Your task to perform on an android device: change the upload size in google photos Image 0: 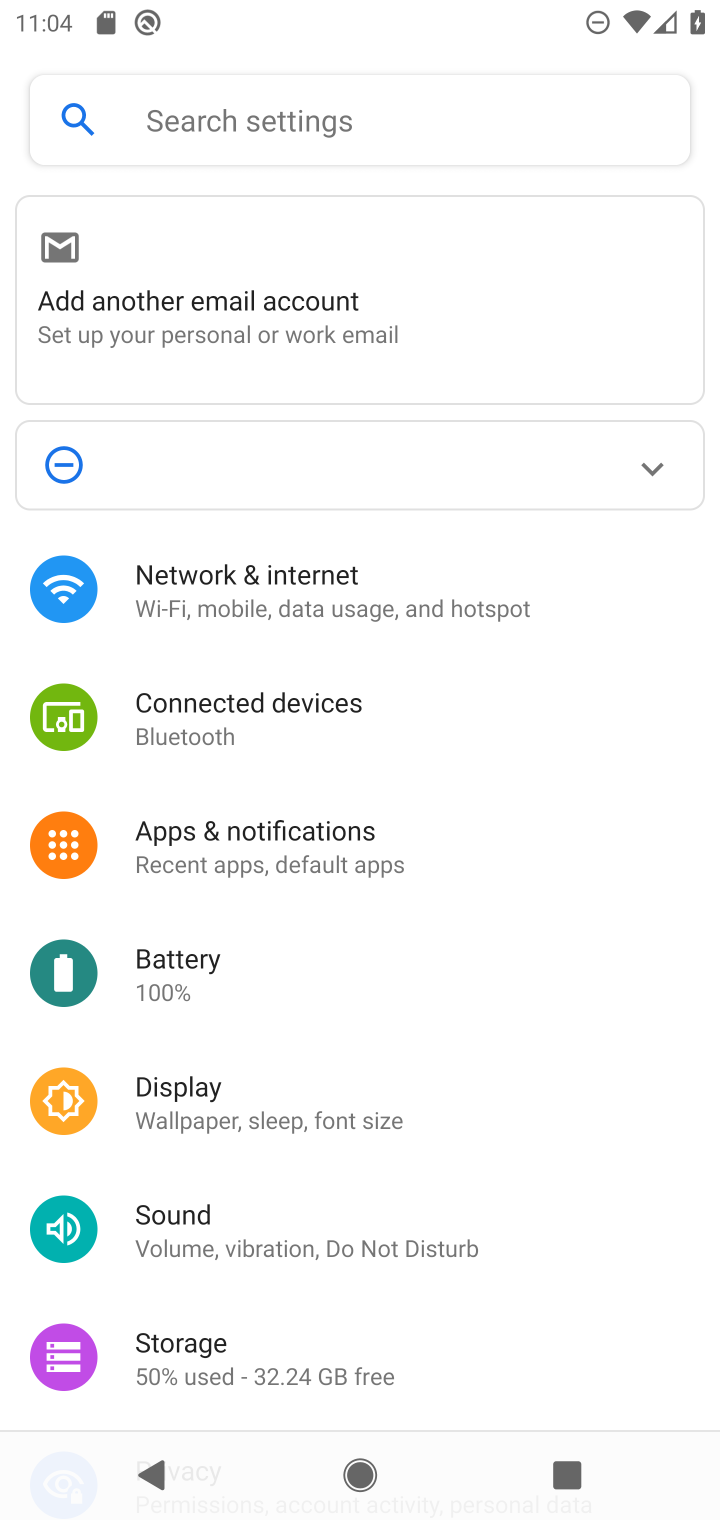
Step 0: press home button
Your task to perform on an android device: change the upload size in google photos Image 1: 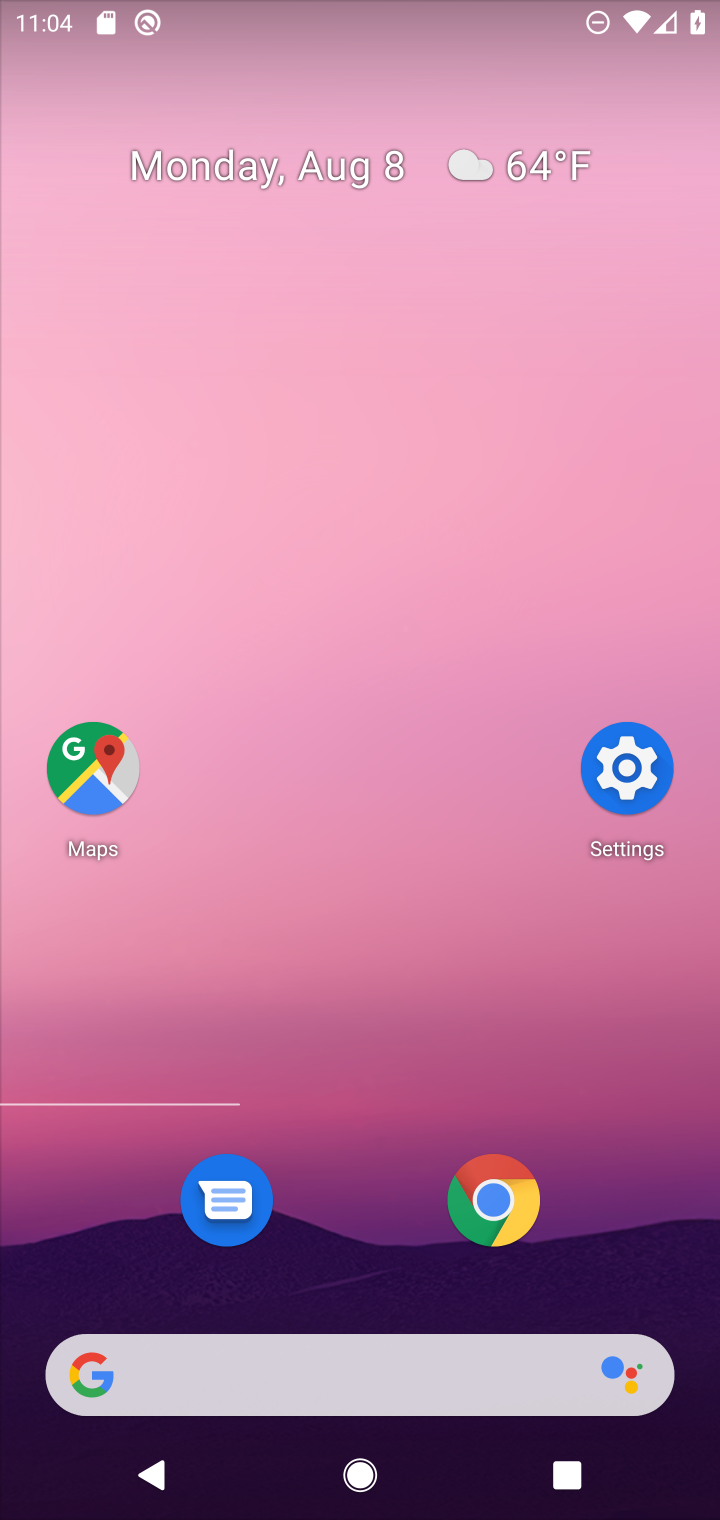
Step 1: drag from (384, 1066) to (529, 217)
Your task to perform on an android device: change the upload size in google photos Image 2: 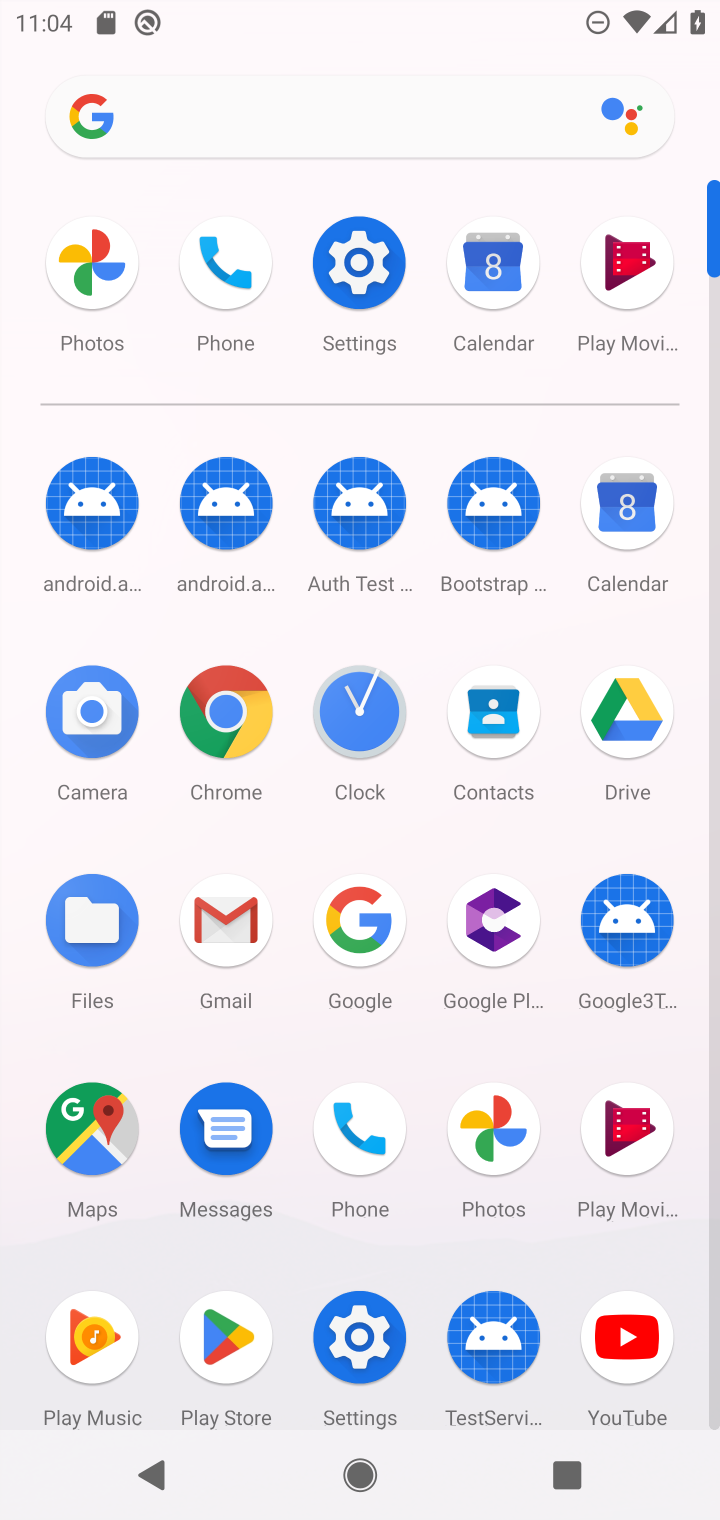
Step 2: click (99, 270)
Your task to perform on an android device: change the upload size in google photos Image 3: 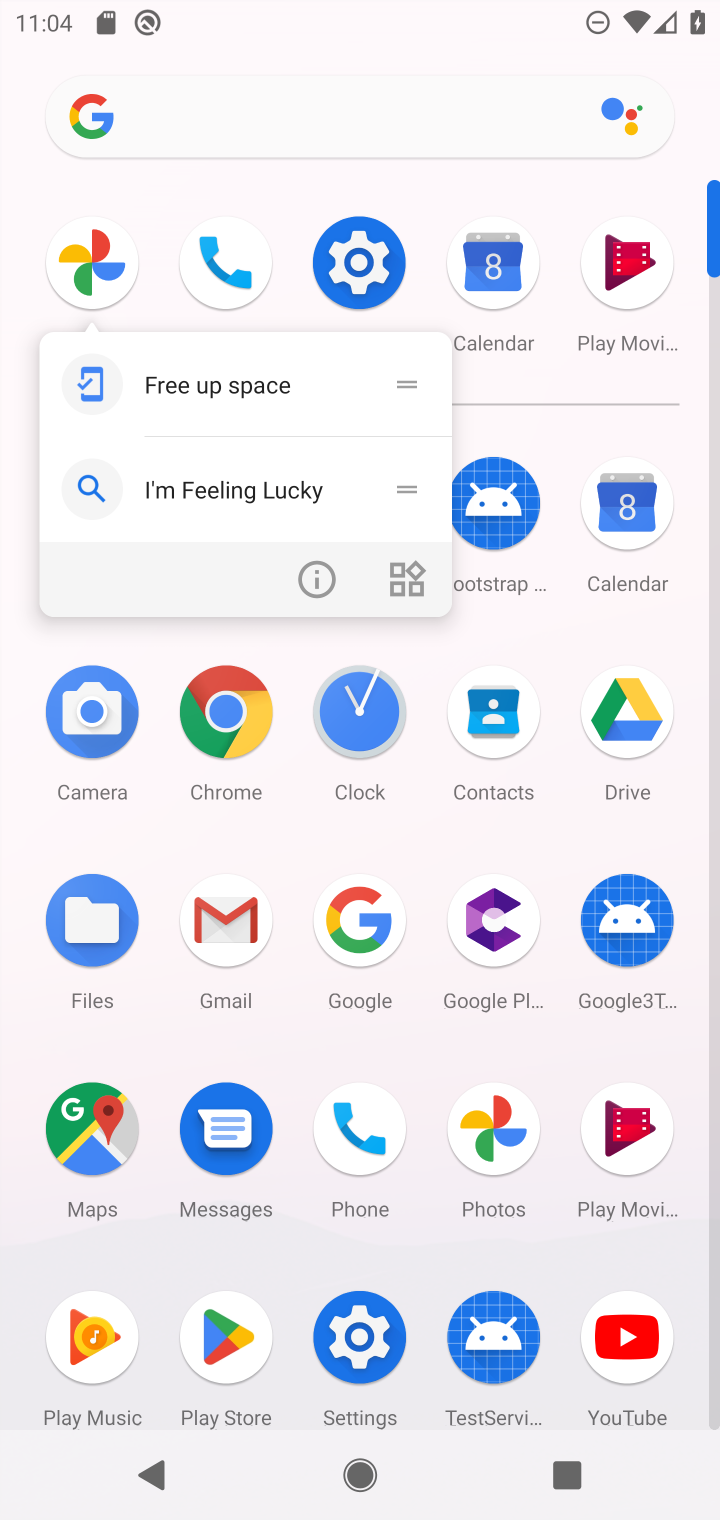
Step 3: click (89, 257)
Your task to perform on an android device: change the upload size in google photos Image 4: 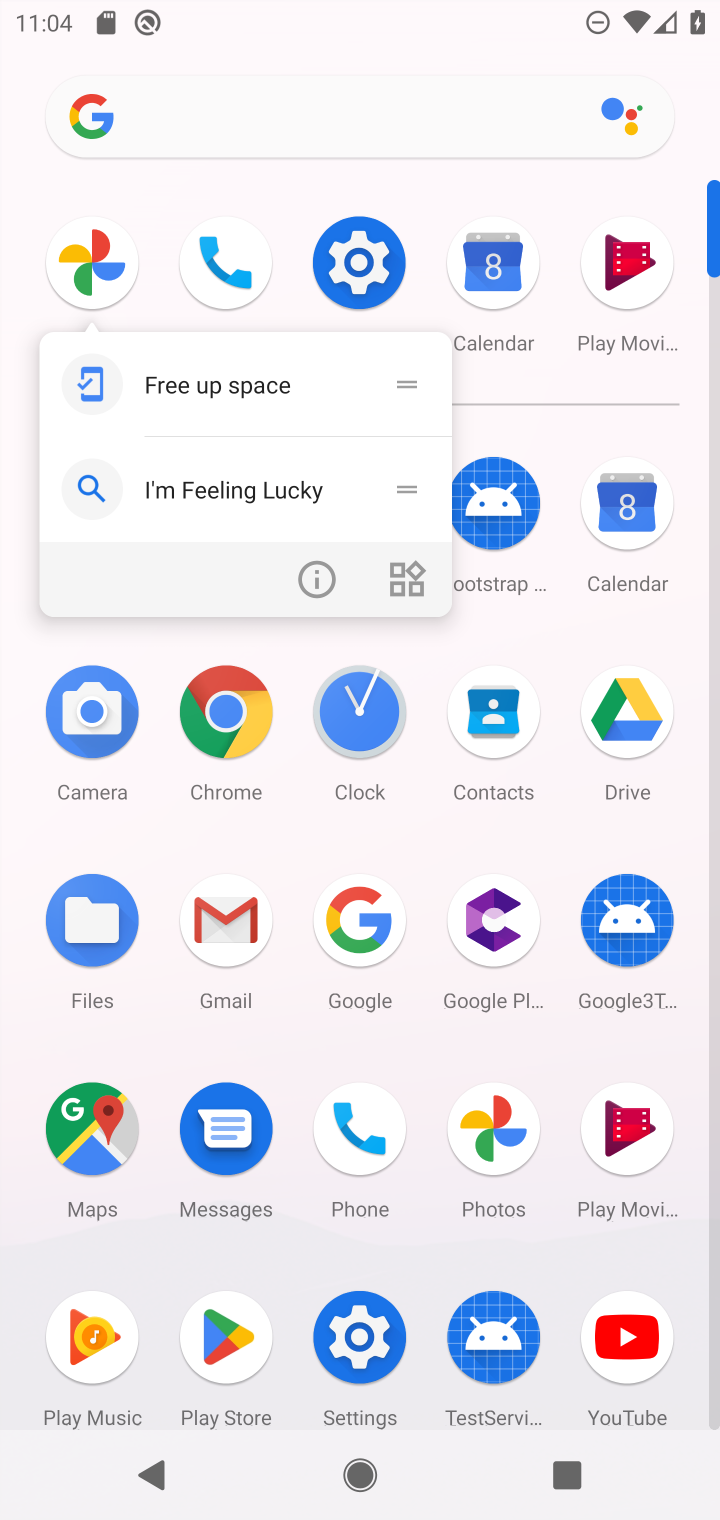
Step 4: click (78, 261)
Your task to perform on an android device: change the upload size in google photos Image 5: 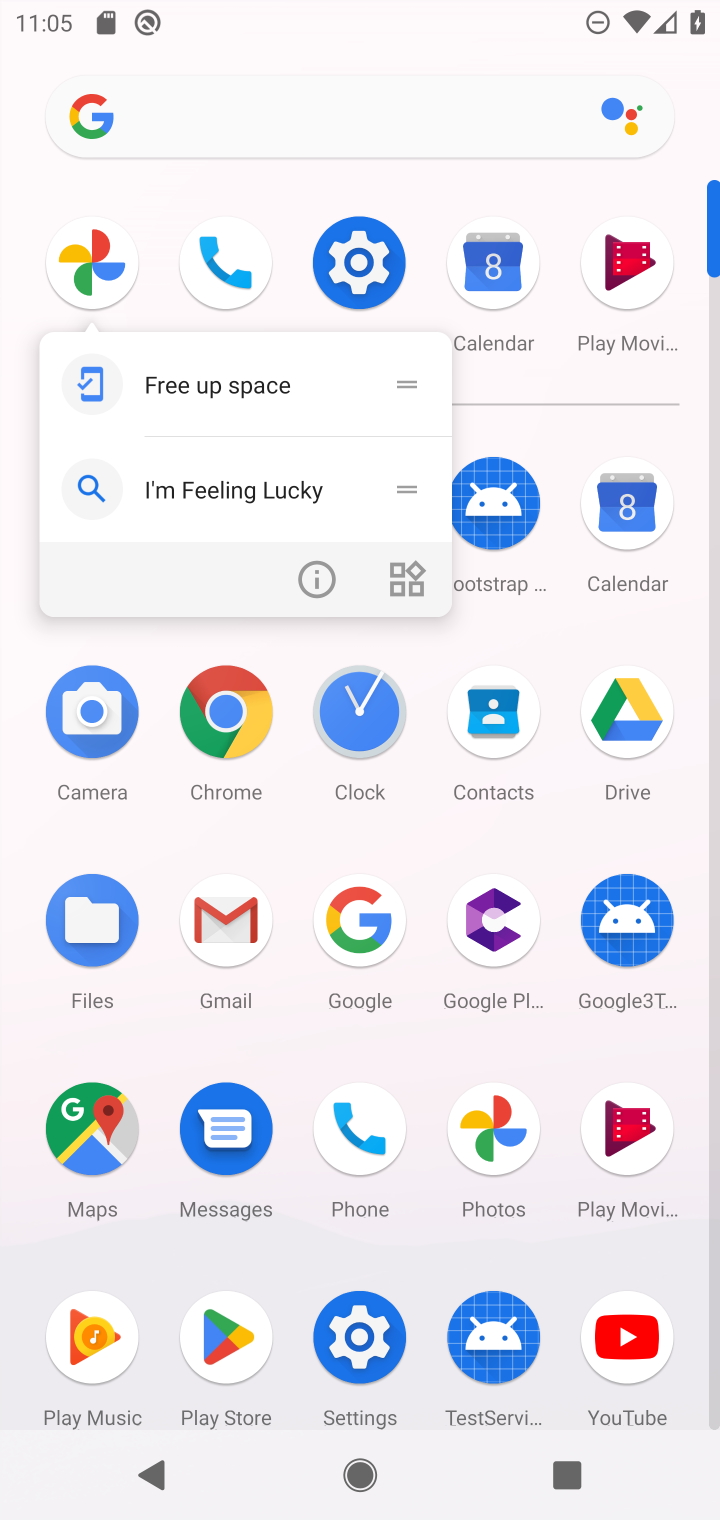
Step 5: click (78, 261)
Your task to perform on an android device: change the upload size in google photos Image 6: 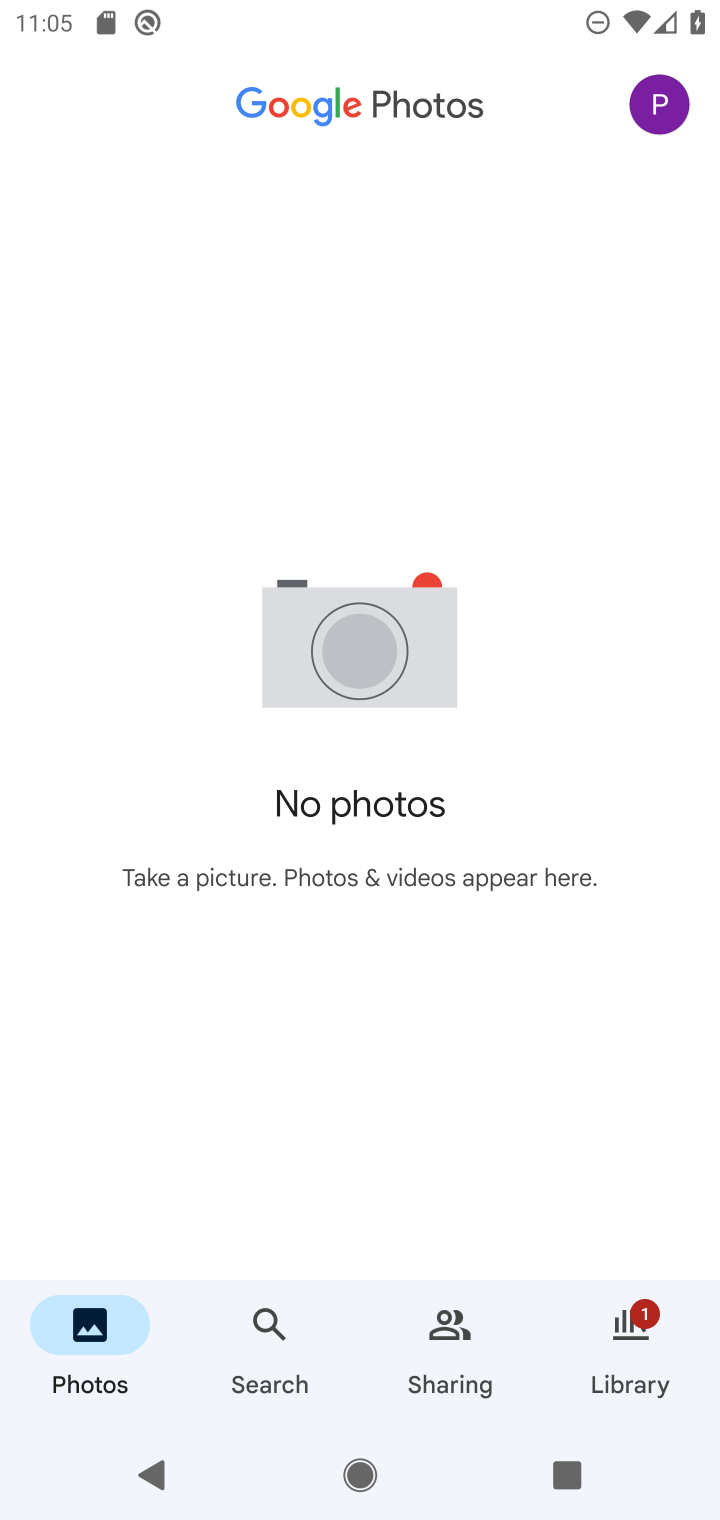
Step 6: click (655, 102)
Your task to perform on an android device: change the upload size in google photos Image 7: 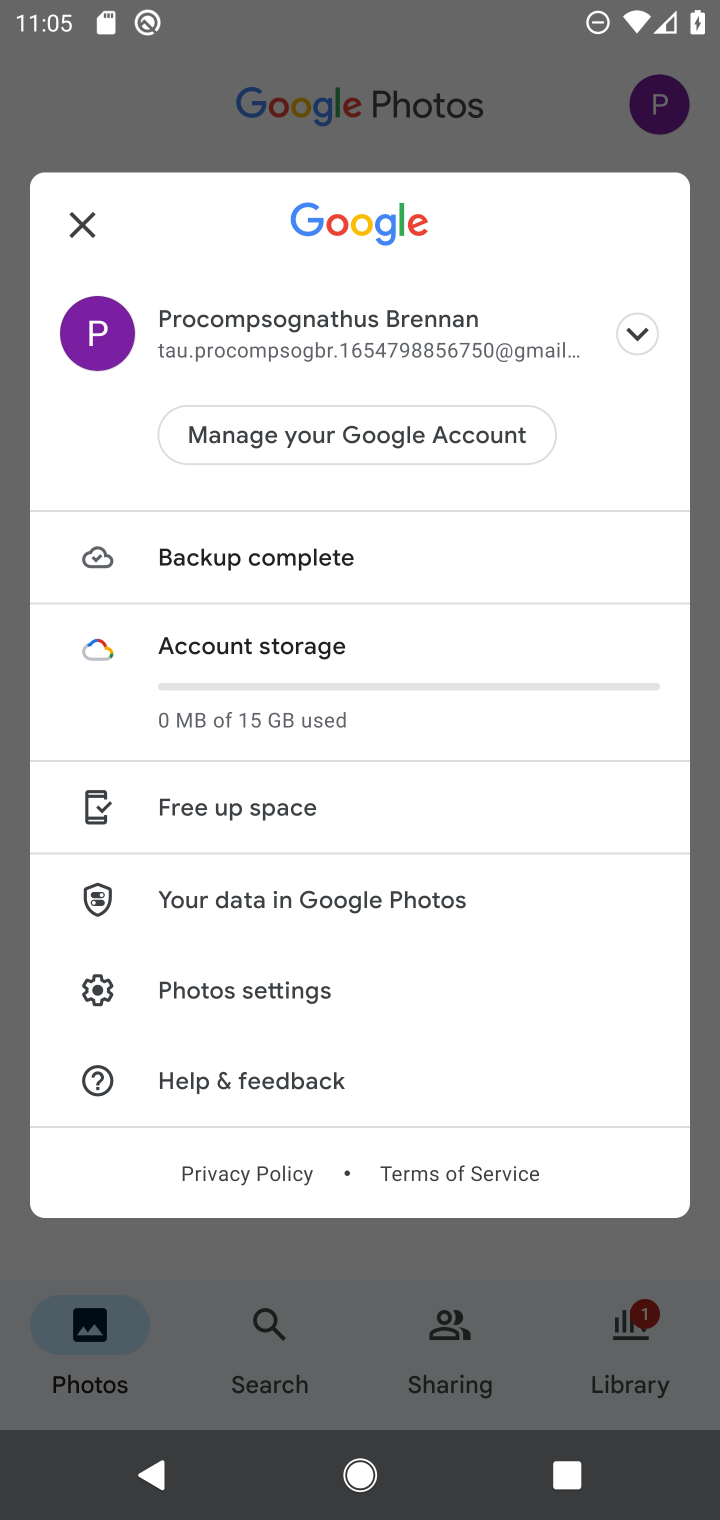
Step 7: click (270, 1000)
Your task to perform on an android device: change the upload size in google photos Image 8: 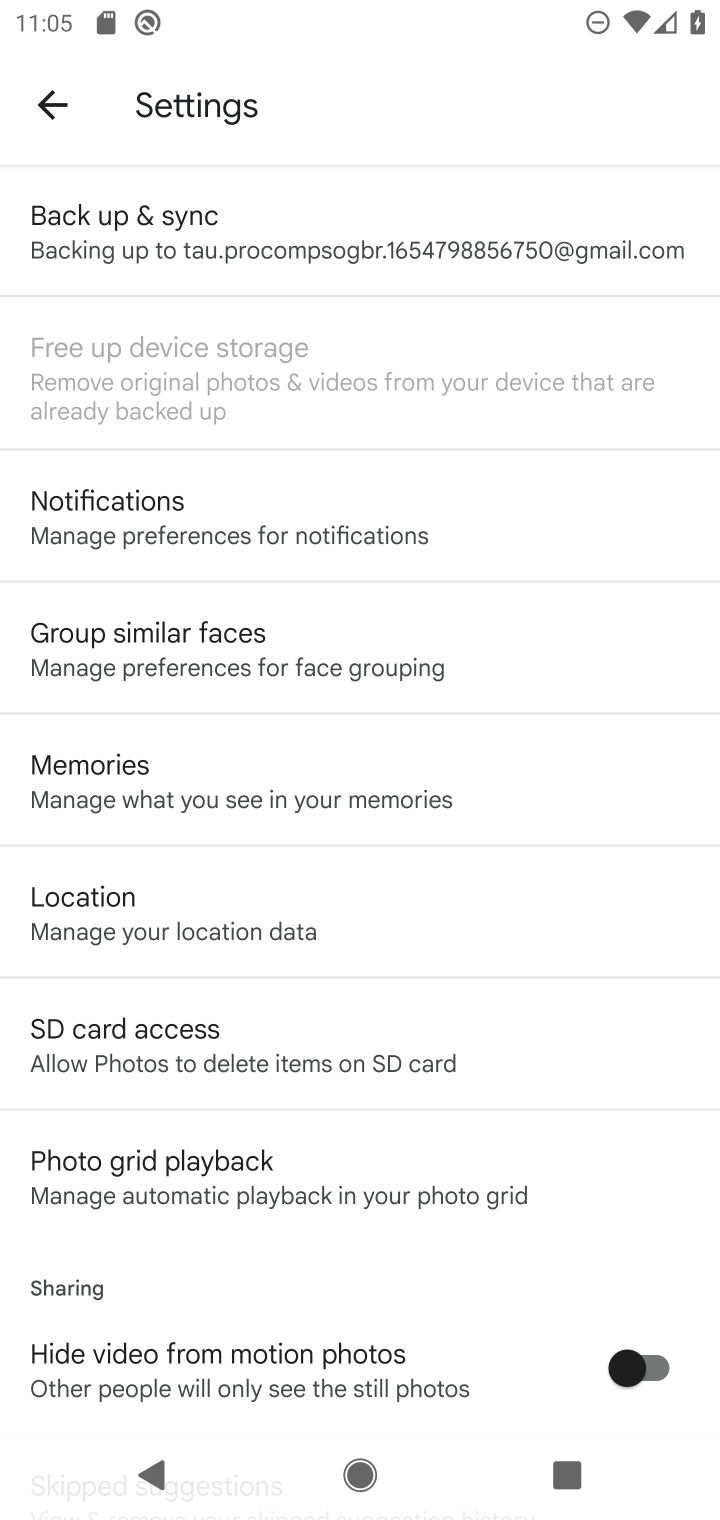
Step 8: click (264, 261)
Your task to perform on an android device: change the upload size in google photos Image 9: 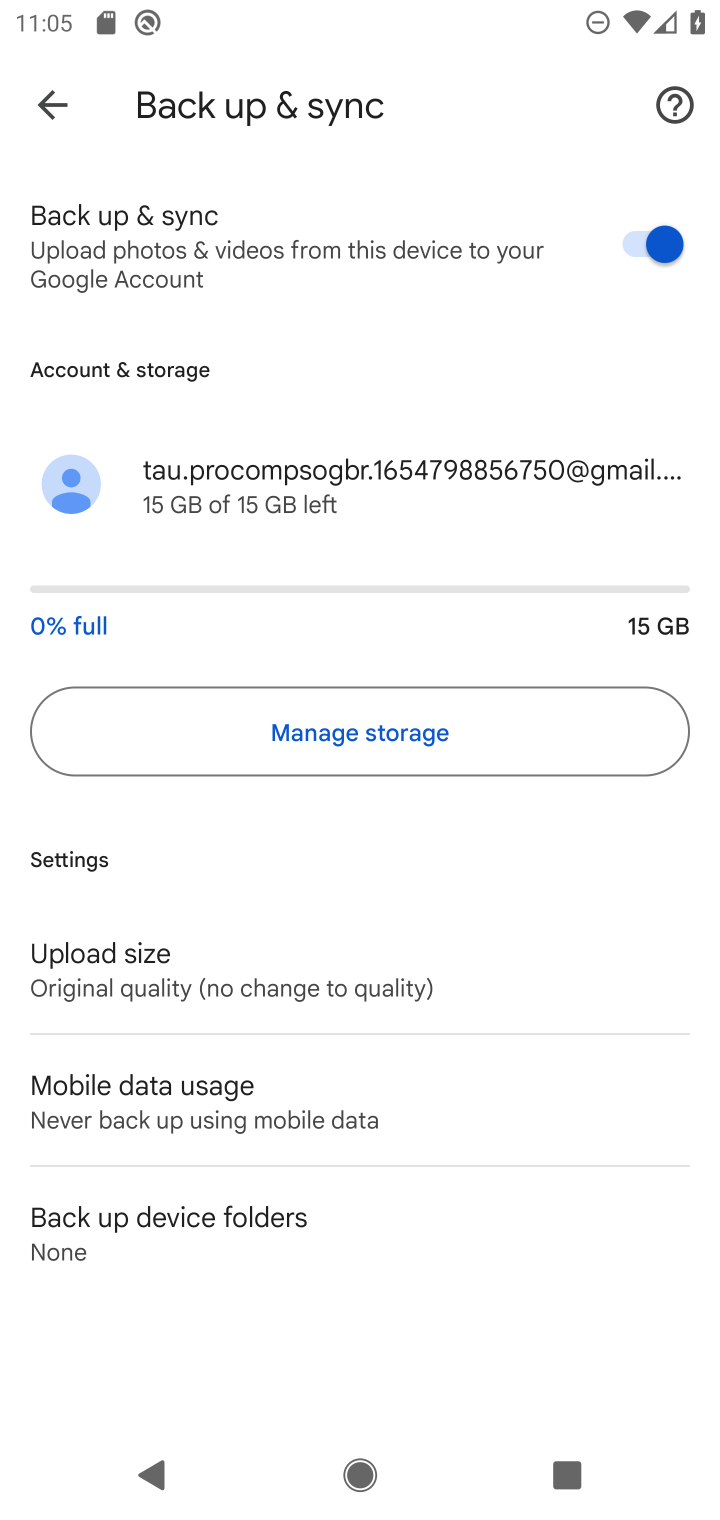
Step 9: click (199, 982)
Your task to perform on an android device: change the upload size in google photos Image 10: 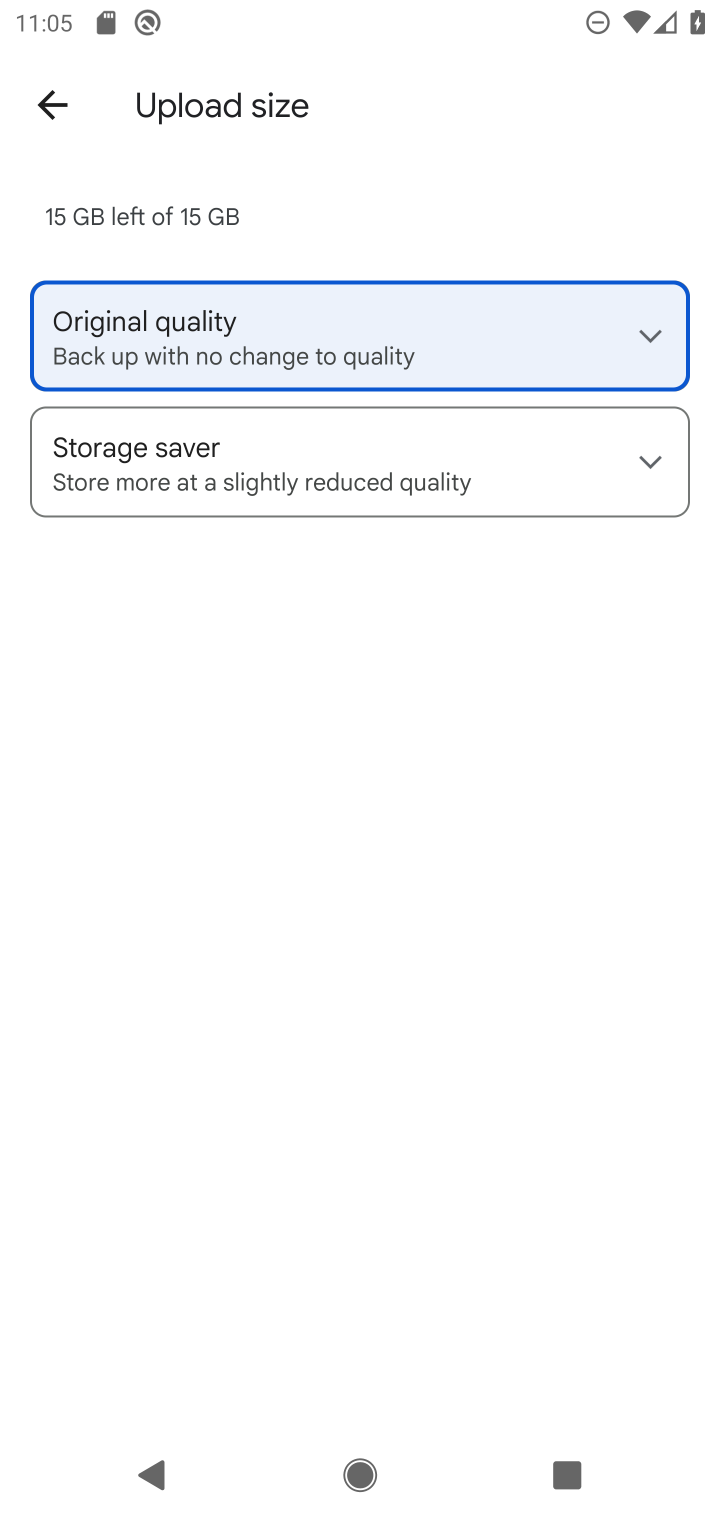
Step 10: click (654, 448)
Your task to perform on an android device: change the upload size in google photos Image 11: 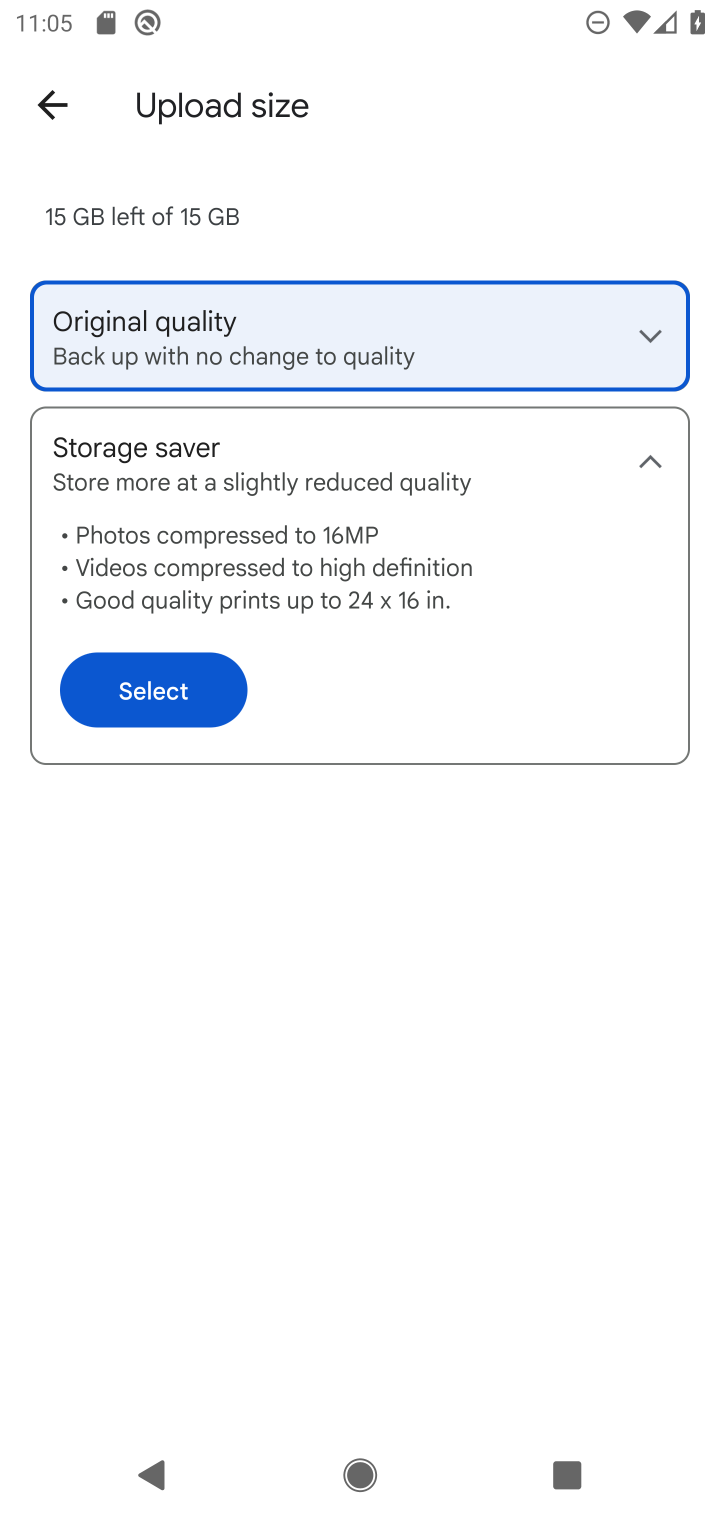
Step 11: click (178, 679)
Your task to perform on an android device: change the upload size in google photos Image 12: 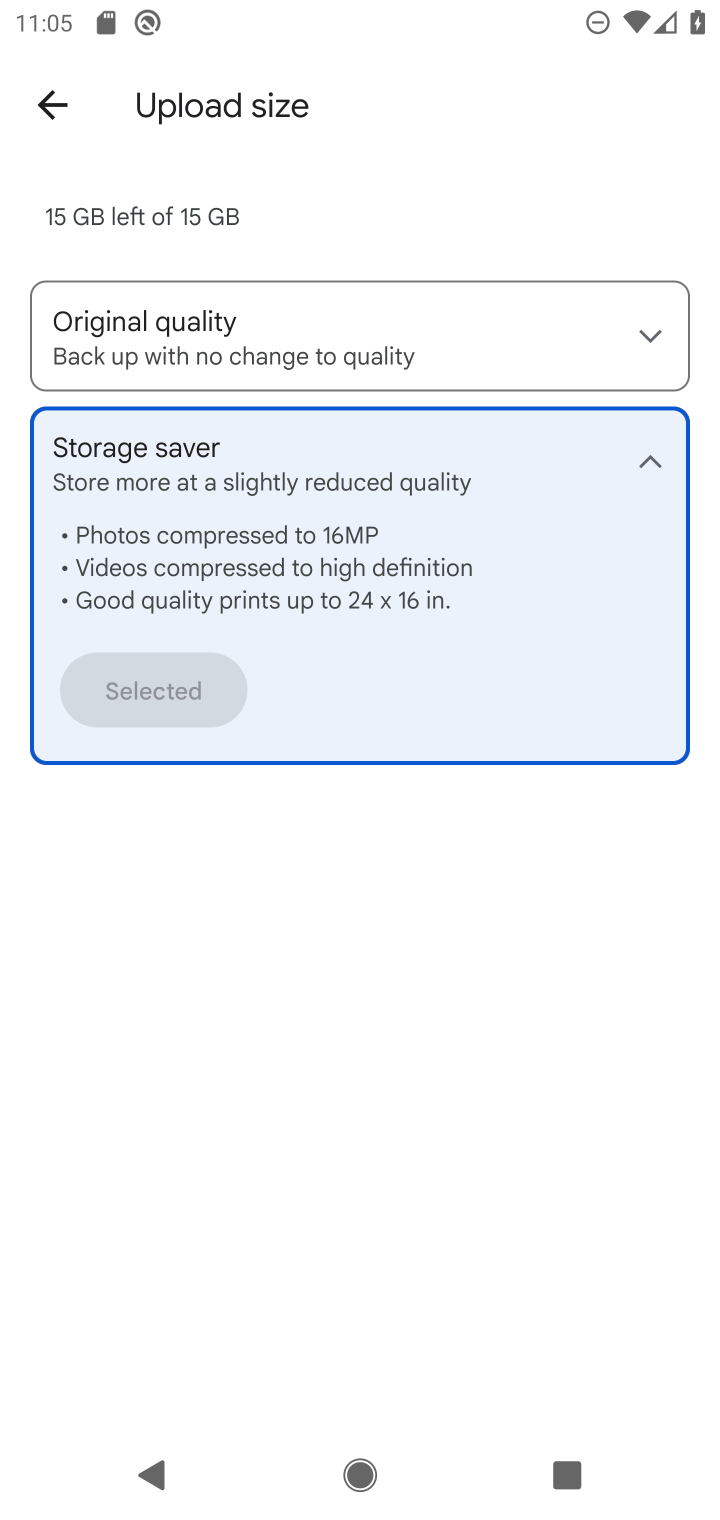
Step 12: task complete